Your task to perform on an android device: Open display settings Image 0: 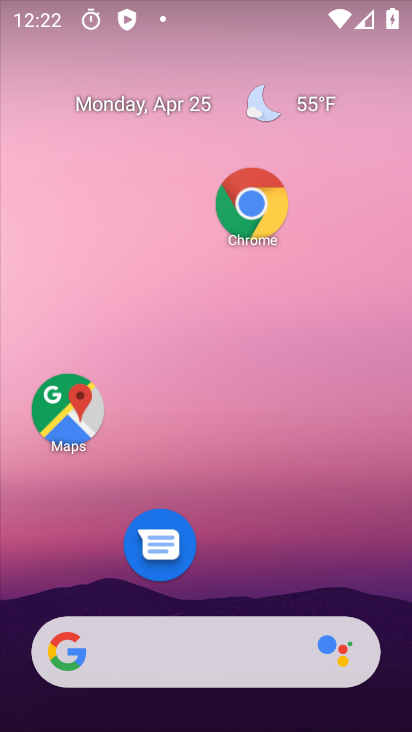
Step 0: drag from (297, 690) to (315, 143)
Your task to perform on an android device: Open display settings Image 1: 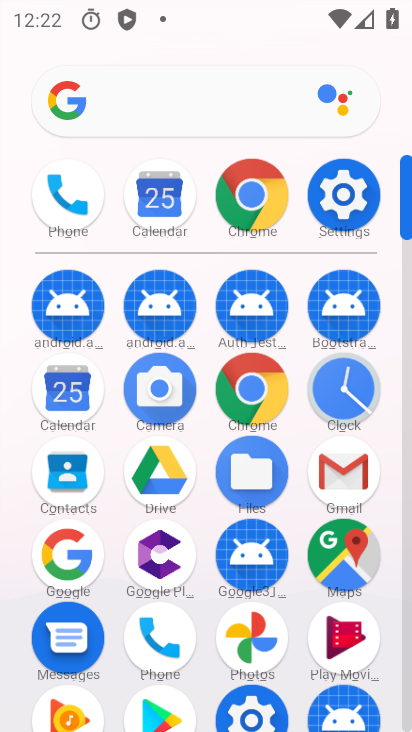
Step 1: click (346, 190)
Your task to perform on an android device: Open display settings Image 2: 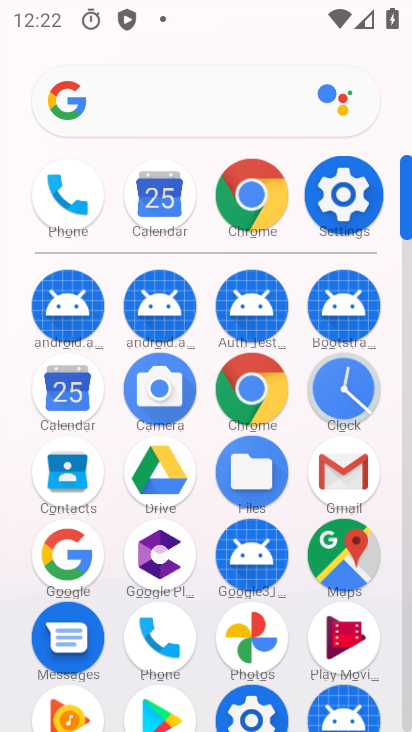
Step 2: click (350, 194)
Your task to perform on an android device: Open display settings Image 3: 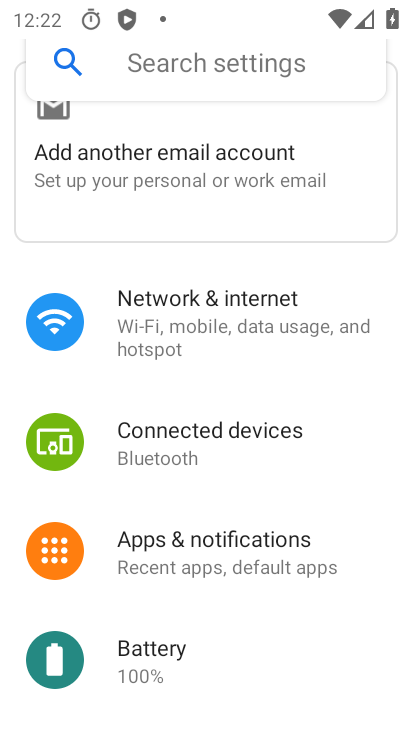
Step 3: drag from (210, 515) to (251, 333)
Your task to perform on an android device: Open display settings Image 4: 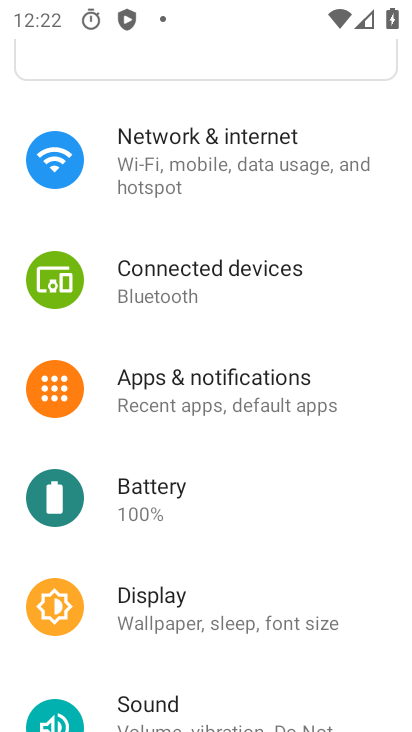
Step 4: click (133, 601)
Your task to perform on an android device: Open display settings Image 5: 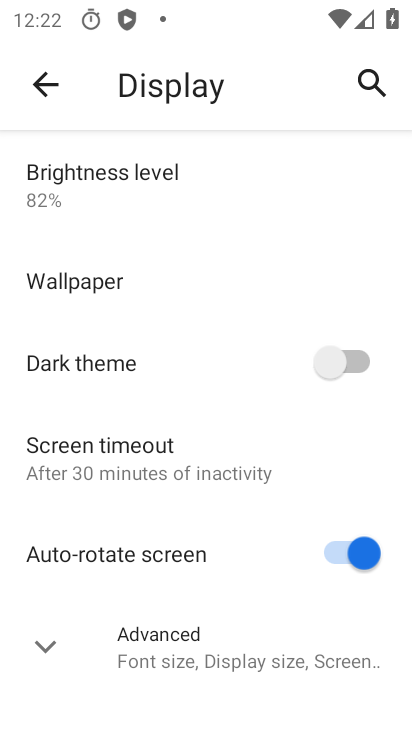
Step 5: click (21, 646)
Your task to perform on an android device: Open display settings Image 6: 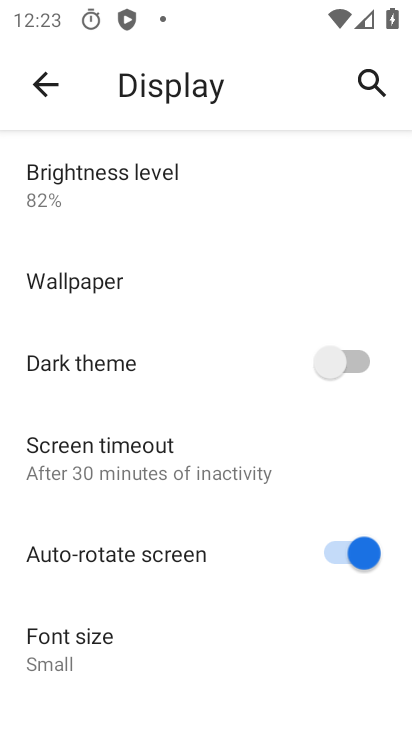
Step 6: task complete